Your task to perform on an android device: turn on javascript in the chrome app Image 0: 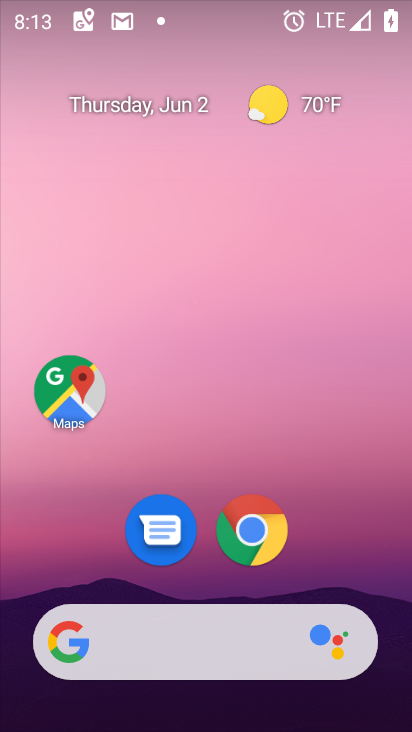
Step 0: click (271, 529)
Your task to perform on an android device: turn on javascript in the chrome app Image 1: 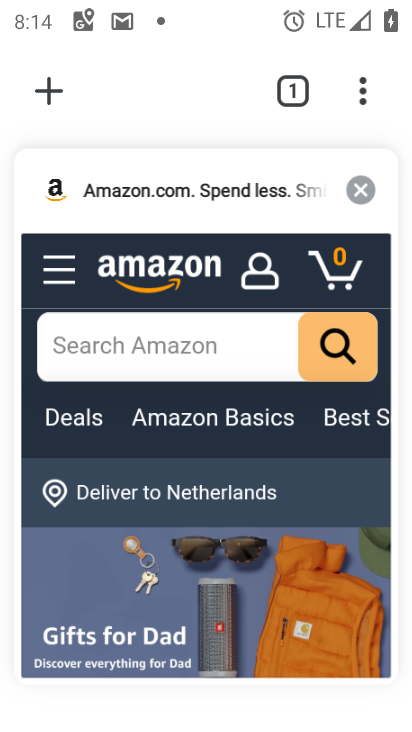
Step 1: click (364, 91)
Your task to perform on an android device: turn on javascript in the chrome app Image 2: 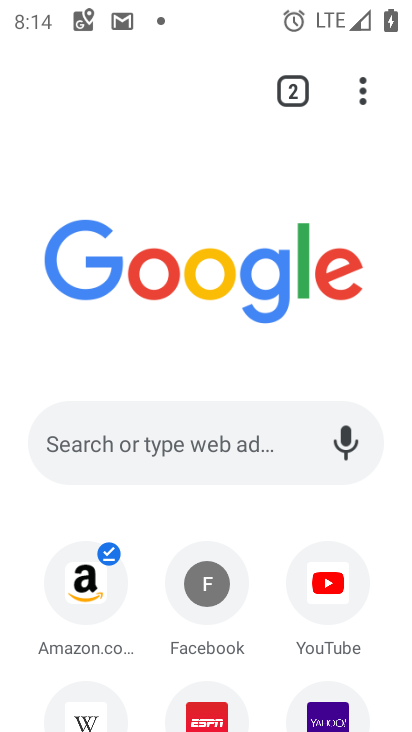
Step 2: click (362, 87)
Your task to perform on an android device: turn on javascript in the chrome app Image 3: 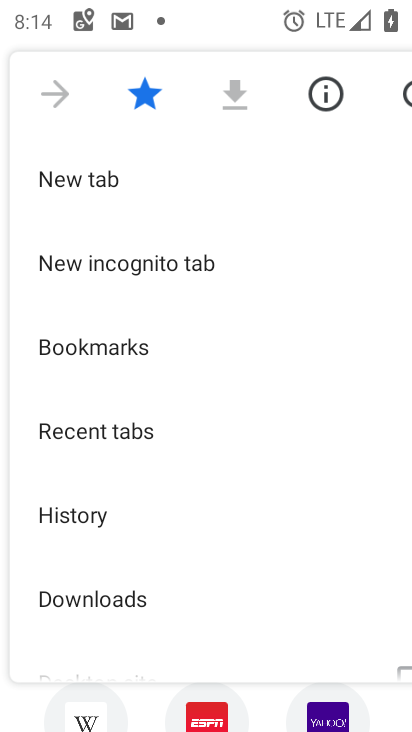
Step 3: drag from (201, 571) to (219, 205)
Your task to perform on an android device: turn on javascript in the chrome app Image 4: 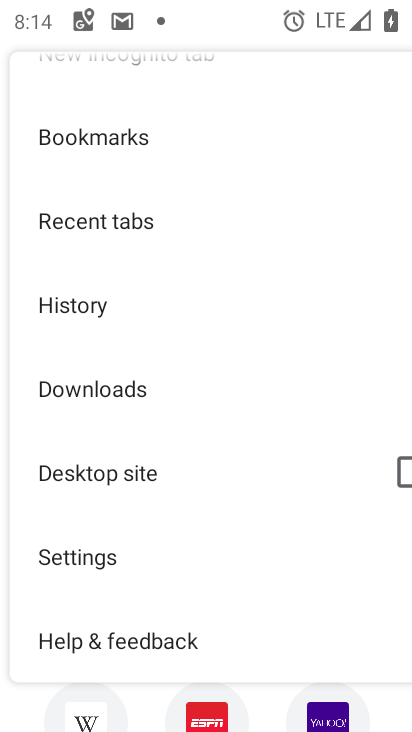
Step 4: click (94, 559)
Your task to perform on an android device: turn on javascript in the chrome app Image 5: 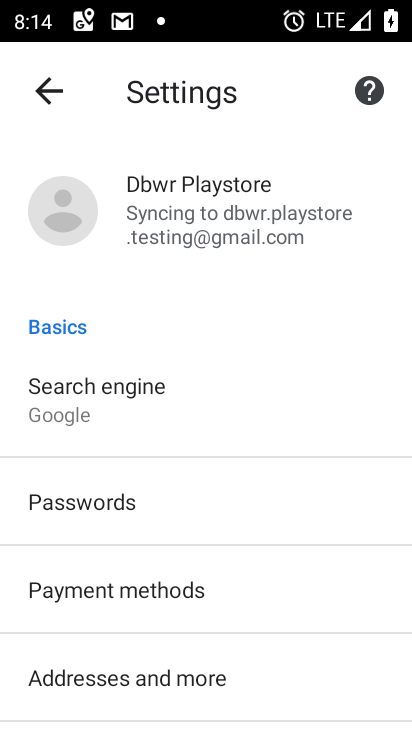
Step 5: drag from (44, 686) to (87, 319)
Your task to perform on an android device: turn on javascript in the chrome app Image 6: 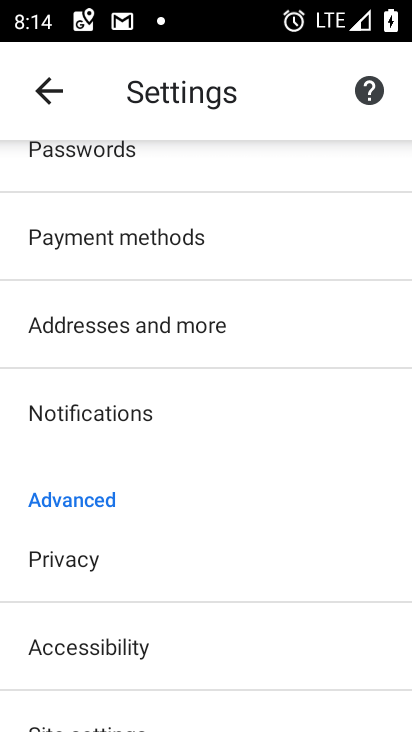
Step 6: drag from (88, 696) to (128, 373)
Your task to perform on an android device: turn on javascript in the chrome app Image 7: 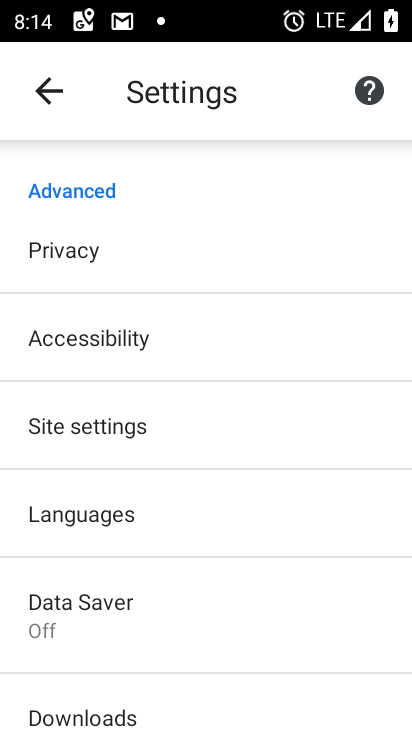
Step 7: drag from (107, 684) to (172, 325)
Your task to perform on an android device: turn on javascript in the chrome app Image 8: 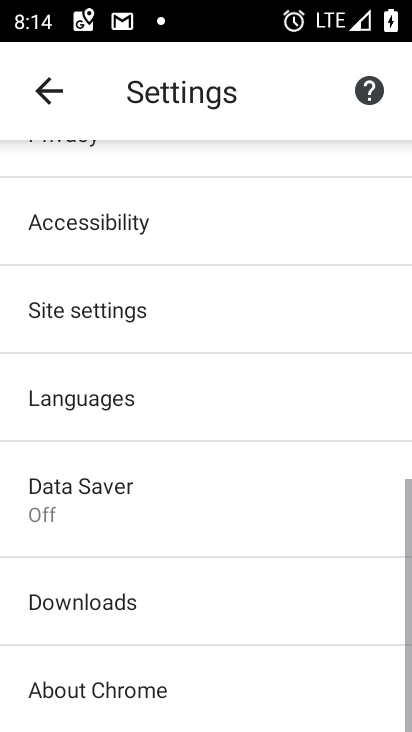
Step 8: click (131, 309)
Your task to perform on an android device: turn on javascript in the chrome app Image 9: 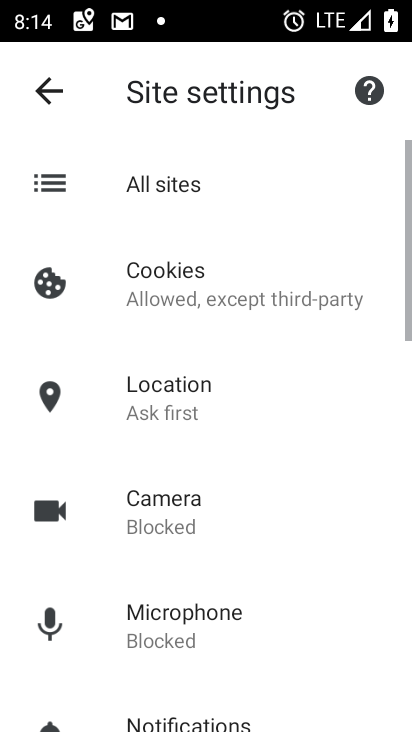
Step 9: drag from (148, 680) to (207, 302)
Your task to perform on an android device: turn on javascript in the chrome app Image 10: 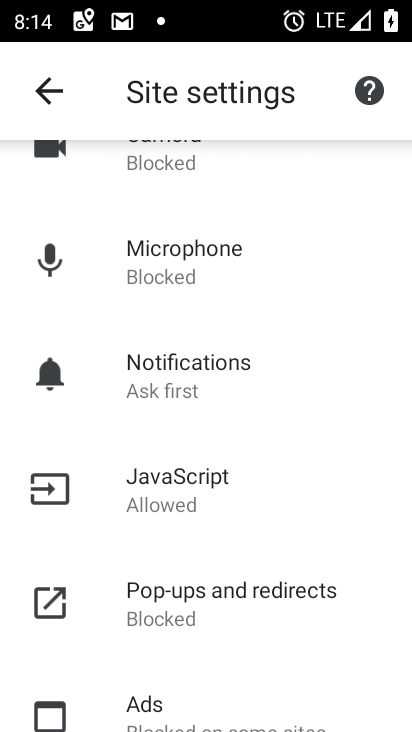
Step 10: click (182, 497)
Your task to perform on an android device: turn on javascript in the chrome app Image 11: 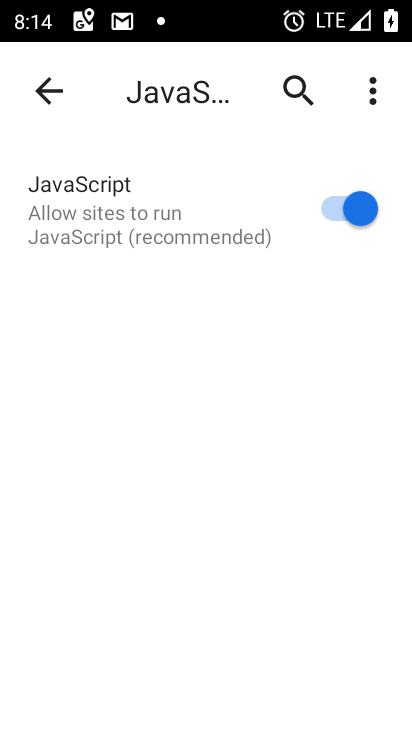
Step 11: task complete